Your task to perform on an android device: visit the assistant section in the google photos Image 0: 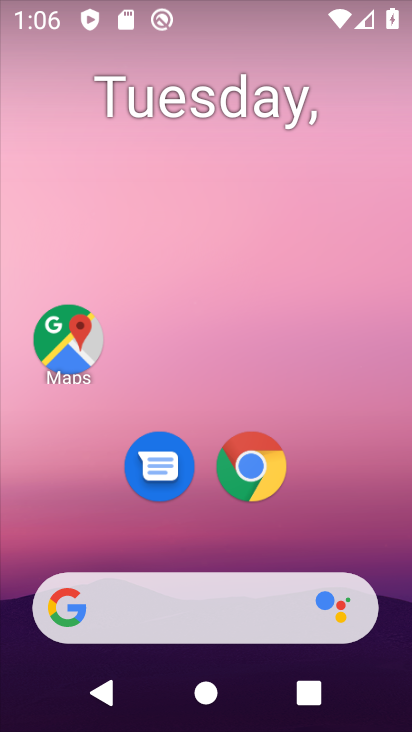
Step 0: drag from (339, 542) to (285, 174)
Your task to perform on an android device: visit the assistant section in the google photos Image 1: 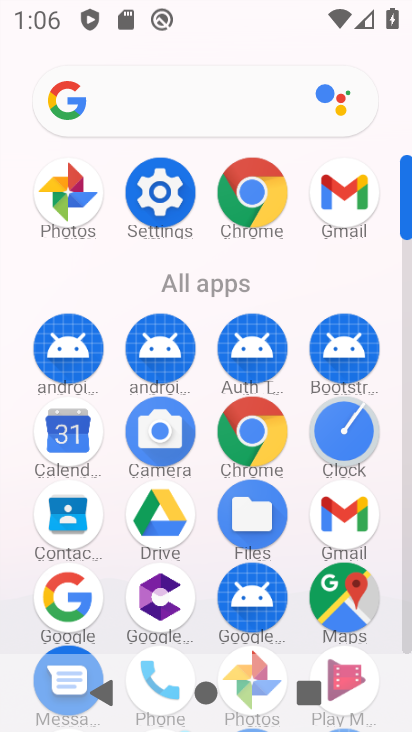
Step 1: click (68, 201)
Your task to perform on an android device: visit the assistant section in the google photos Image 2: 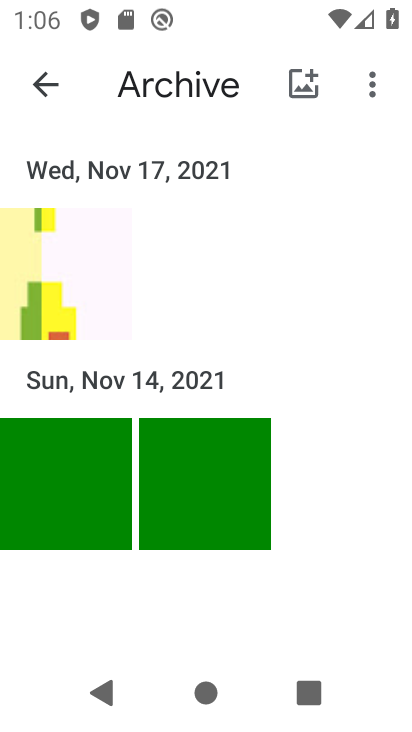
Step 2: click (25, 101)
Your task to perform on an android device: visit the assistant section in the google photos Image 3: 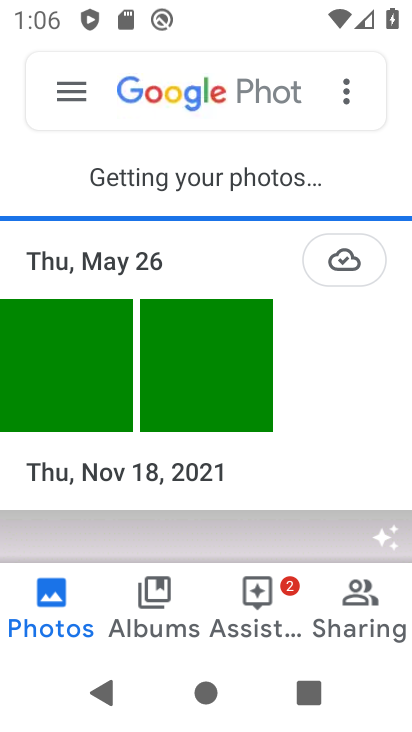
Step 3: click (255, 591)
Your task to perform on an android device: visit the assistant section in the google photos Image 4: 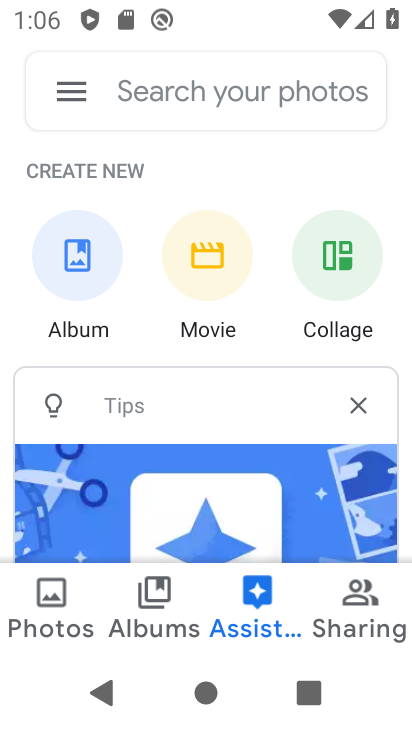
Step 4: task complete